Your task to perform on an android device: delete a single message in the gmail app Image 0: 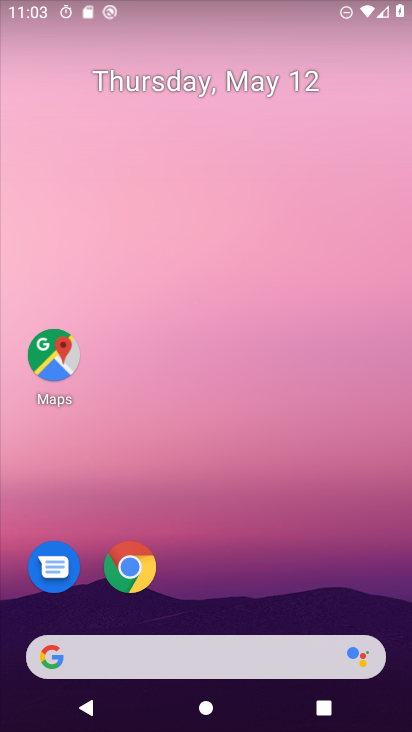
Step 0: drag from (261, 538) to (320, 172)
Your task to perform on an android device: delete a single message in the gmail app Image 1: 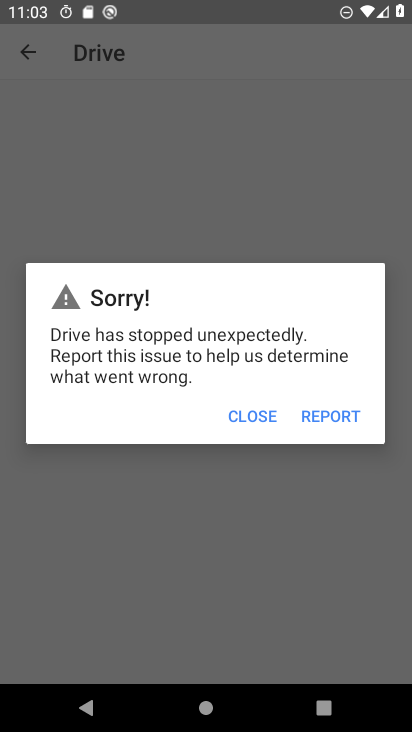
Step 1: click (253, 414)
Your task to perform on an android device: delete a single message in the gmail app Image 2: 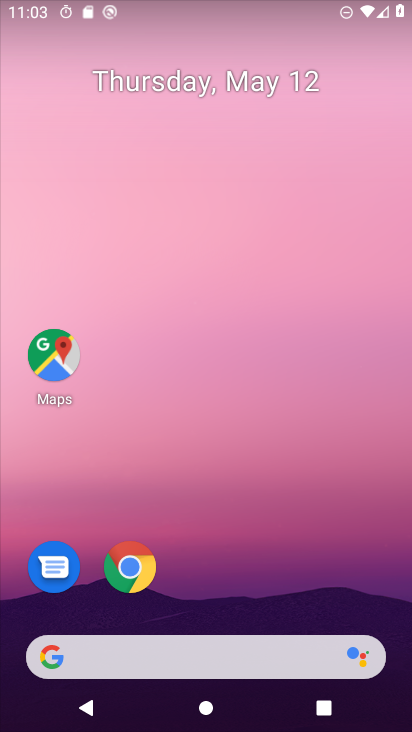
Step 2: drag from (203, 595) to (256, 244)
Your task to perform on an android device: delete a single message in the gmail app Image 3: 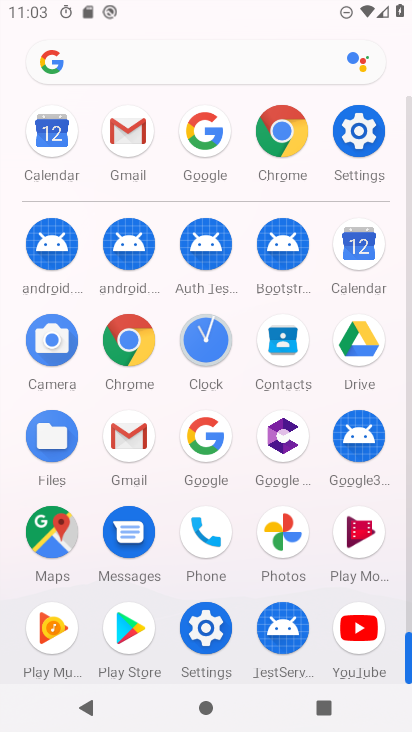
Step 3: click (121, 440)
Your task to perform on an android device: delete a single message in the gmail app Image 4: 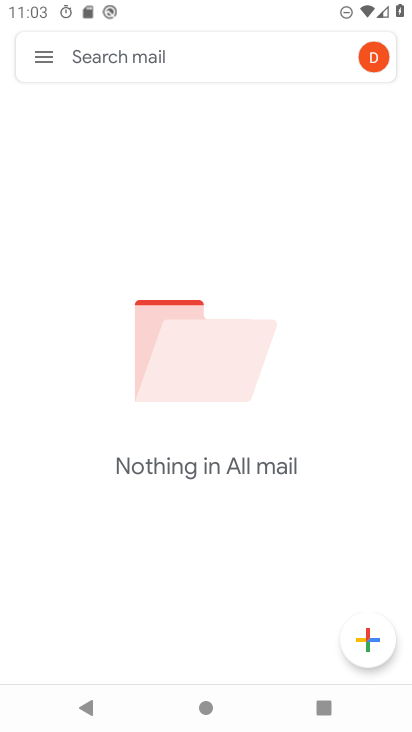
Step 4: click (33, 66)
Your task to perform on an android device: delete a single message in the gmail app Image 5: 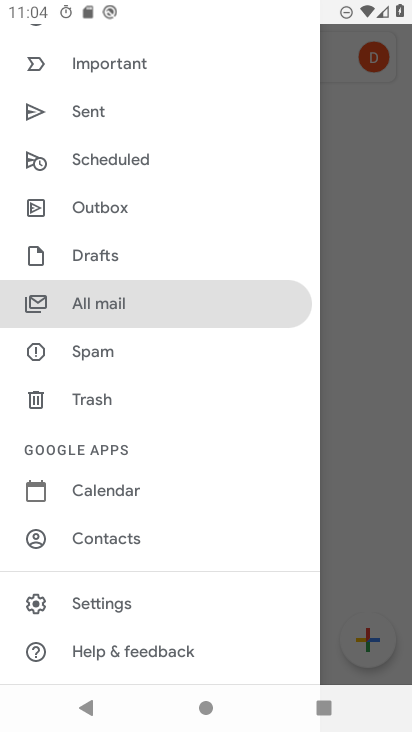
Step 5: drag from (114, 596) to (141, 371)
Your task to perform on an android device: delete a single message in the gmail app Image 6: 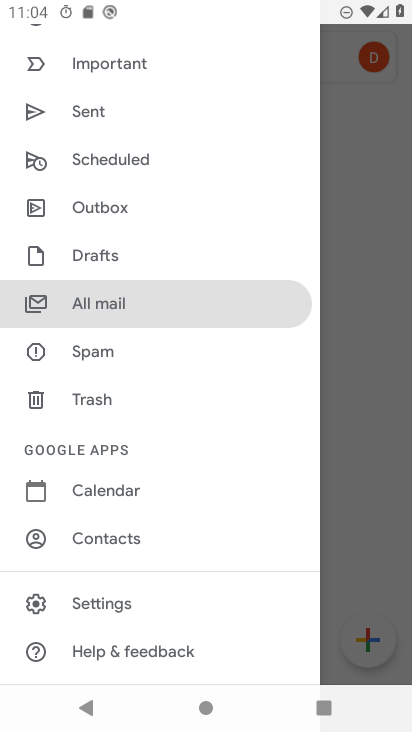
Step 6: click (136, 296)
Your task to perform on an android device: delete a single message in the gmail app Image 7: 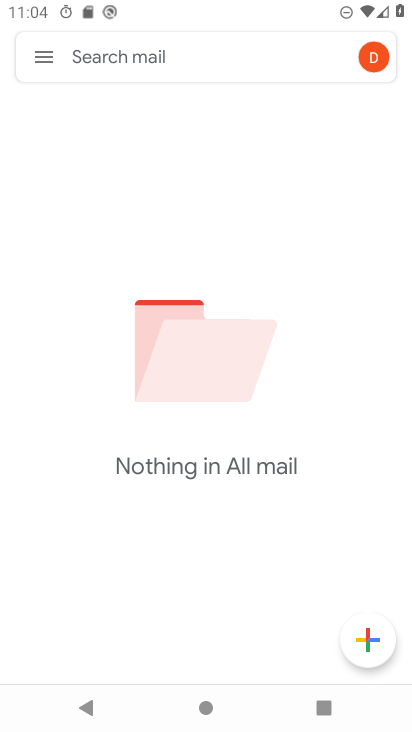
Step 7: task complete